Your task to perform on an android device: toggle sleep mode Image 0: 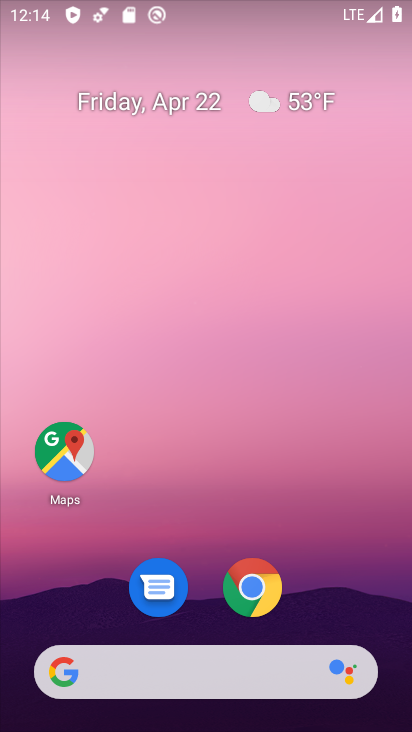
Step 0: drag from (219, 601) to (316, 50)
Your task to perform on an android device: toggle sleep mode Image 1: 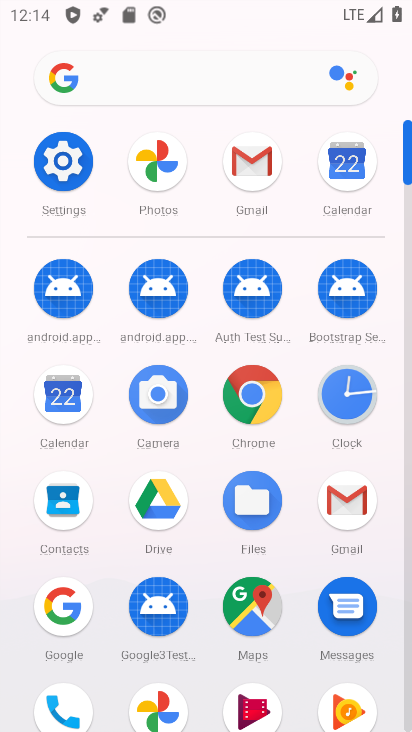
Step 1: click (71, 164)
Your task to perform on an android device: toggle sleep mode Image 2: 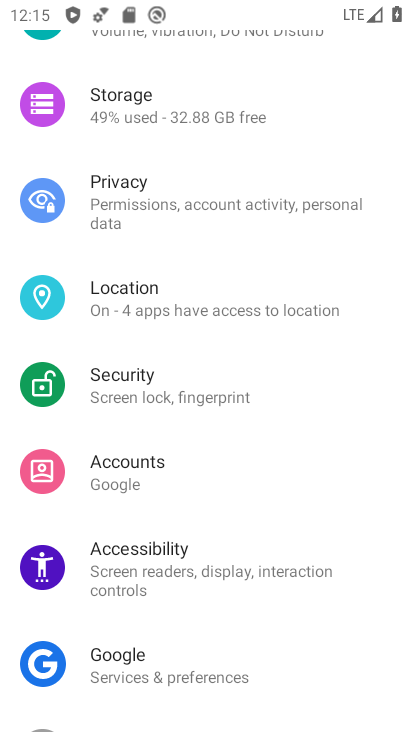
Step 2: drag from (283, 148) to (200, 729)
Your task to perform on an android device: toggle sleep mode Image 3: 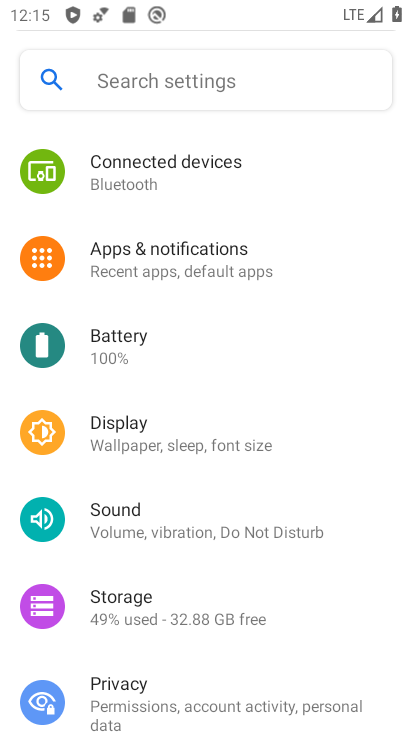
Step 3: click (116, 81)
Your task to perform on an android device: toggle sleep mode Image 4: 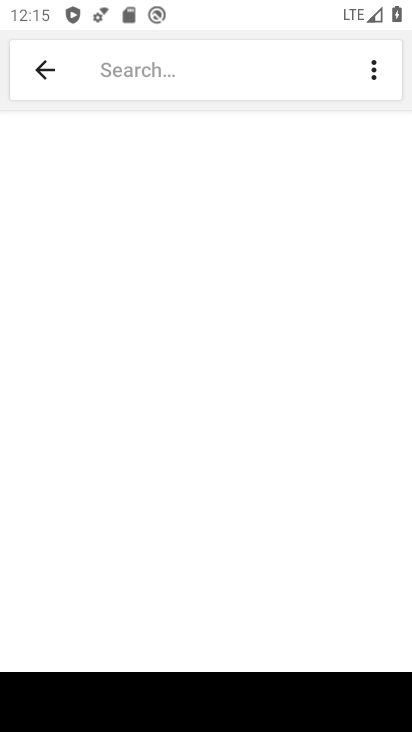
Step 4: type "sleep mode"
Your task to perform on an android device: toggle sleep mode Image 5: 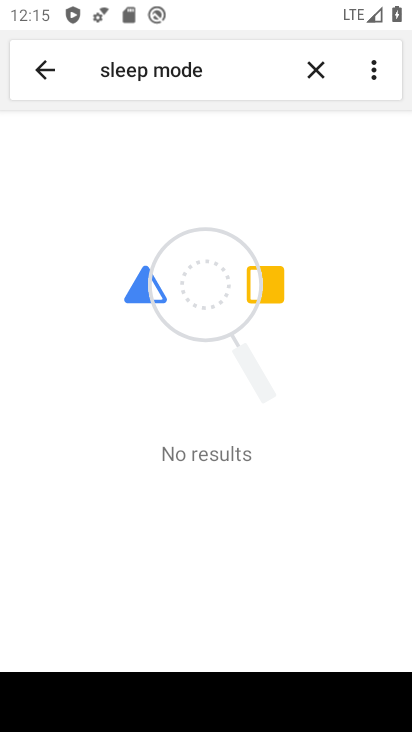
Step 5: task complete